Your task to perform on an android device: Open Chrome and go to settings Image 0: 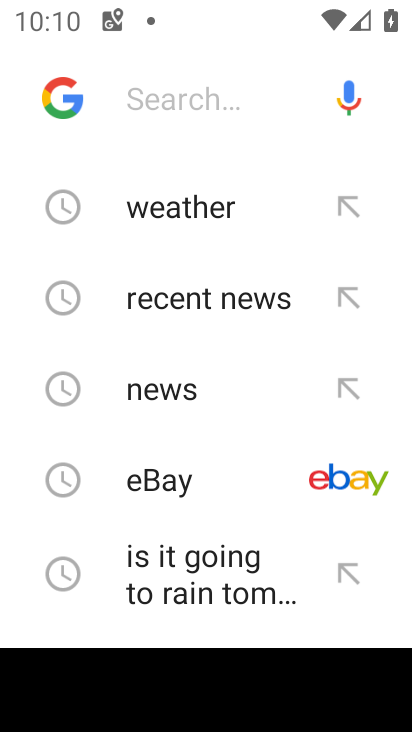
Step 0: press home button
Your task to perform on an android device: Open Chrome and go to settings Image 1: 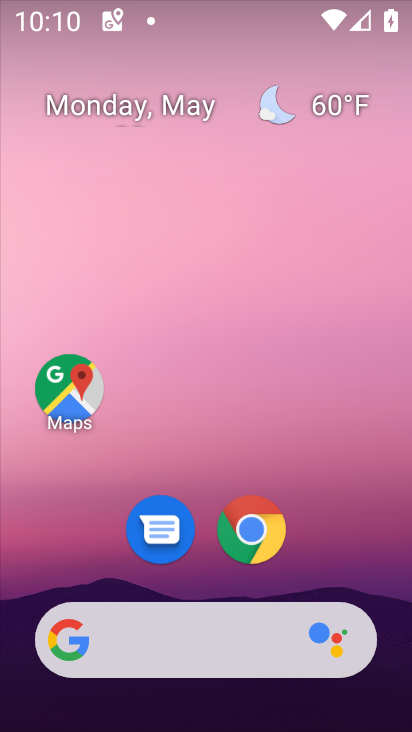
Step 1: drag from (301, 551) to (194, 142)
Your task to perform on an android device: Open Chrome and go to settings Image 2: 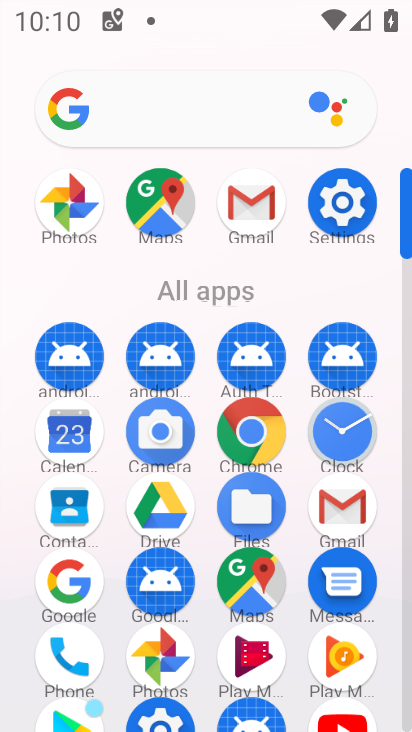
Step 2: click (246, 430)
Your task to perform on an android device: Open Chrome and go to settings Image 3: 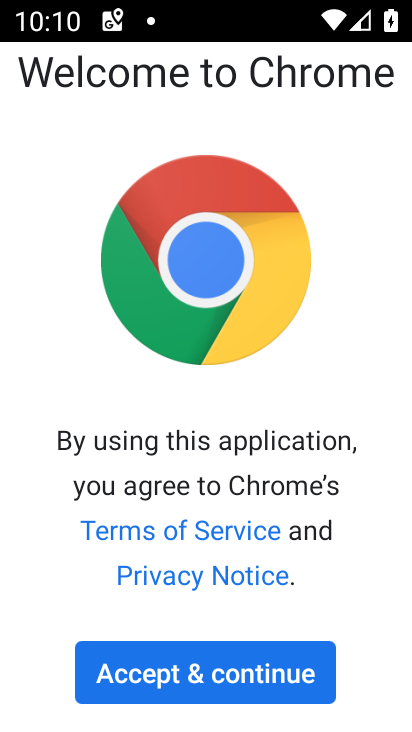
Step 3: click (203, 663)
Your task to perform on an android device: Open Chrome and go to settings Image 4: 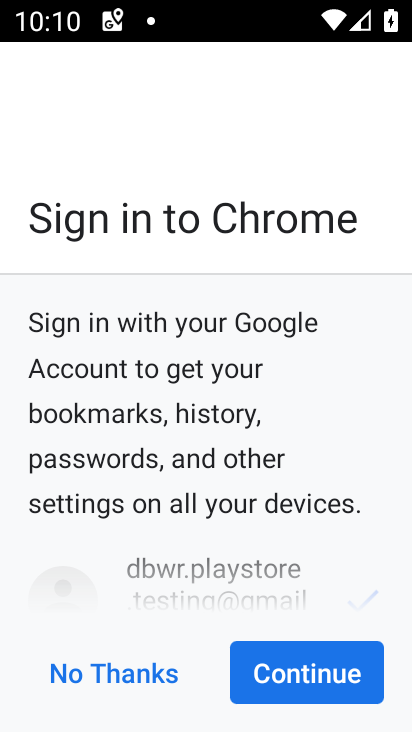
Step 4: click (338, 688)
Your task to perform on an android device: Open Chrome and go to settings Image 5: 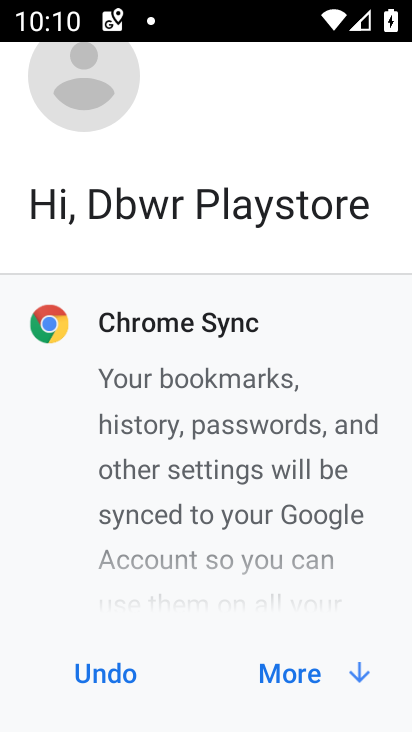
Step 5: click (300, 670)
Your task to perform on an android device: Open Chrome and go to settings Image 6: 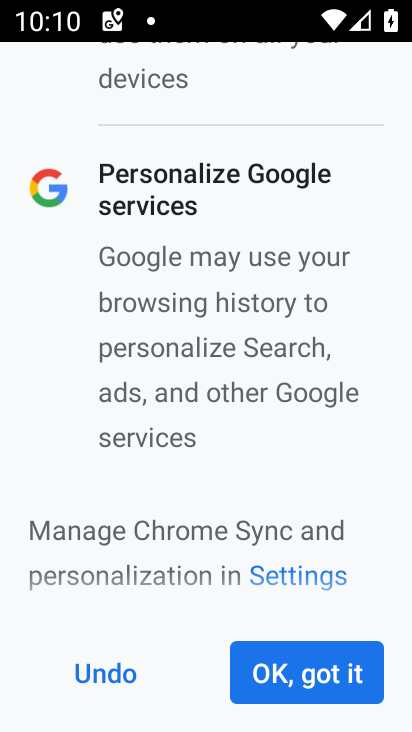
Step 6: click (300, 672)
Your task to perform on an android device: Open Chrome and go to settings Image 7: 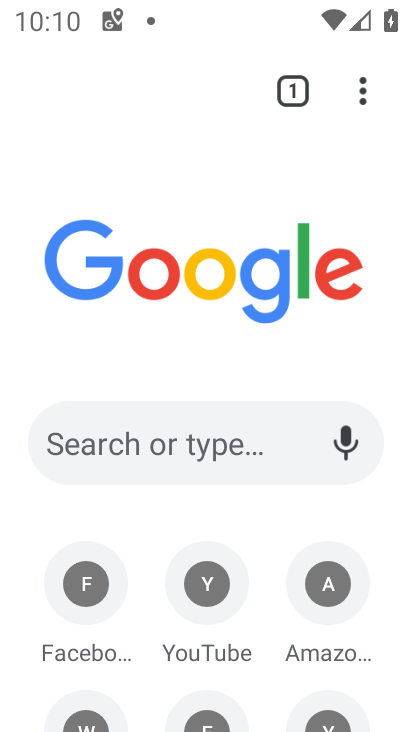
Step 7: click (365, 93)
Your task to perform on an android device: Open Chrome and go to settings Image 8: 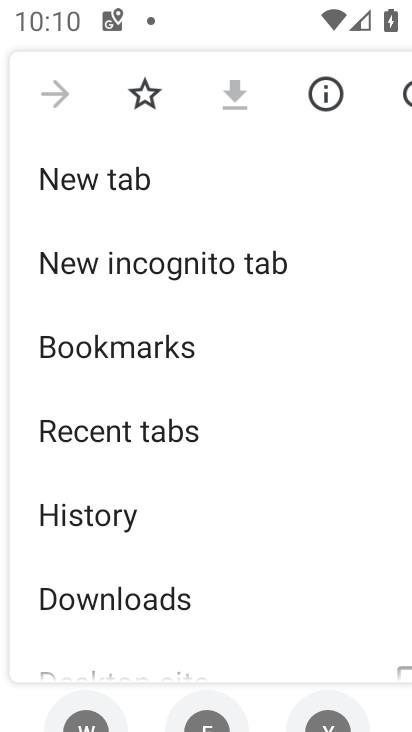
Step 8: drag from (223, 572) to (161, 229)
Your task to perform on an android device: Open Chrome and go to settings Image 9: 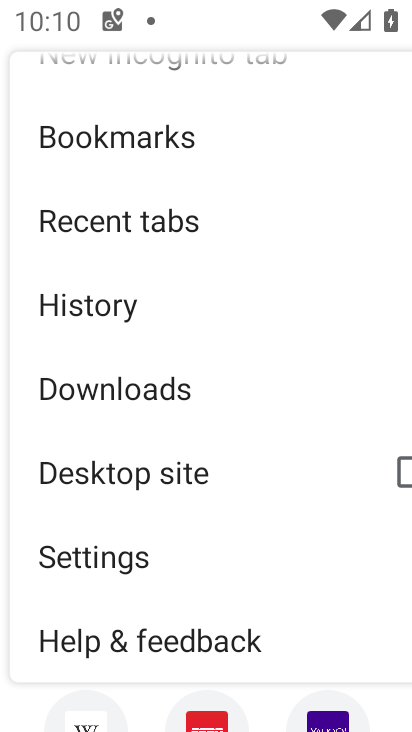
Step 9: click (131, 565)
Your task to perform on an android device: Open Chrome and go to settings Image 10: 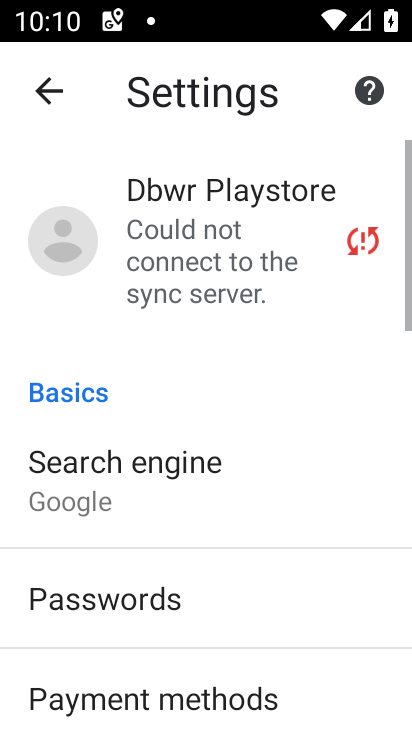
Step 10: task complete